Your task to perform on an android device: change the upload size in google photos Image 0: 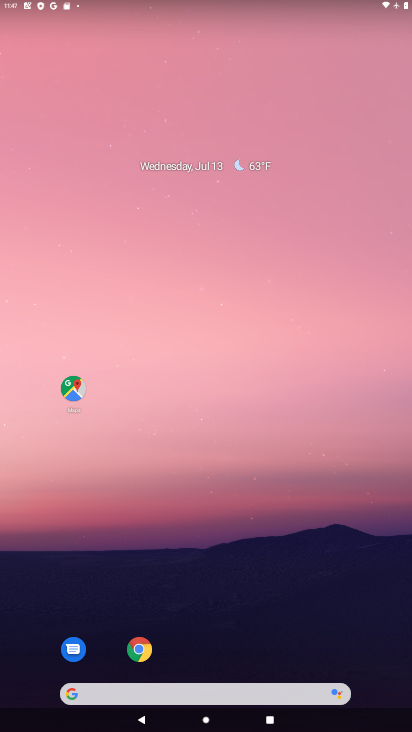
Step 0: drag from (260, 619) to (255, 240)
Your task to perform on an android device: change the upload size in google photos Image 1: 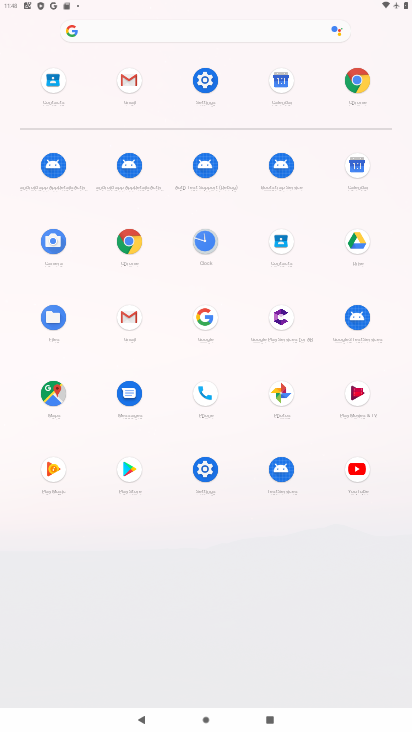
Step 1: click (289, 391)
Your task to perform on an android device: change the upload size in google photos Image 2: 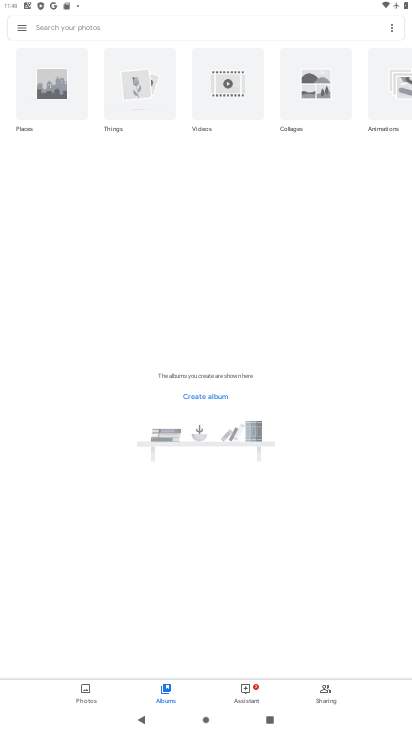
Step 2: click (23, 31)
Your task to perform on an android device: change the upload size in google photos Image 3: 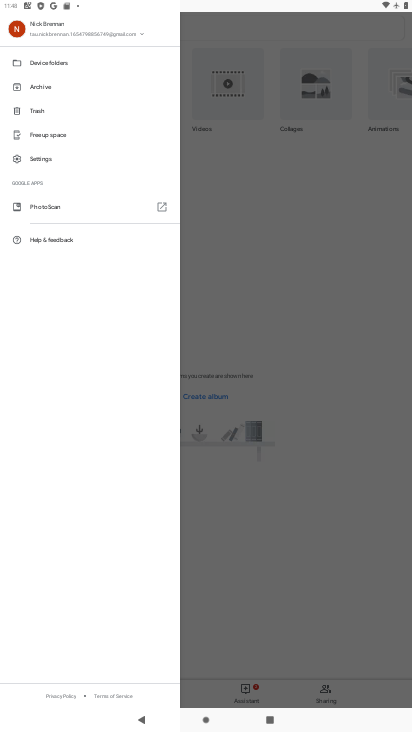
Step 3: click (40, 160)
Your task to perform on an android device: change the upload size in google photos Image 4: 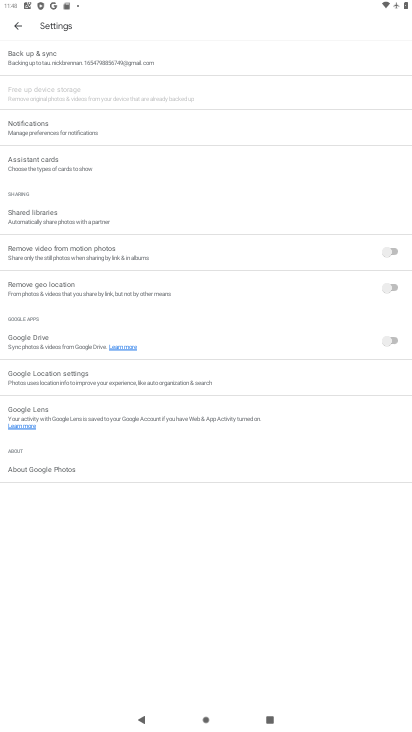
Step 4: click (60, 59)
Your task to perform on an android device: change the upload size in google photos Image 5: 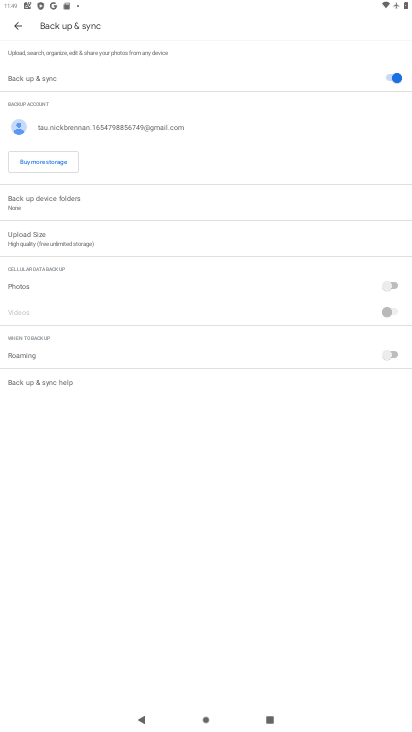
Step 5: click (73, 231)
Your task to perform on an android device: change the upload size in google photos Image 6: 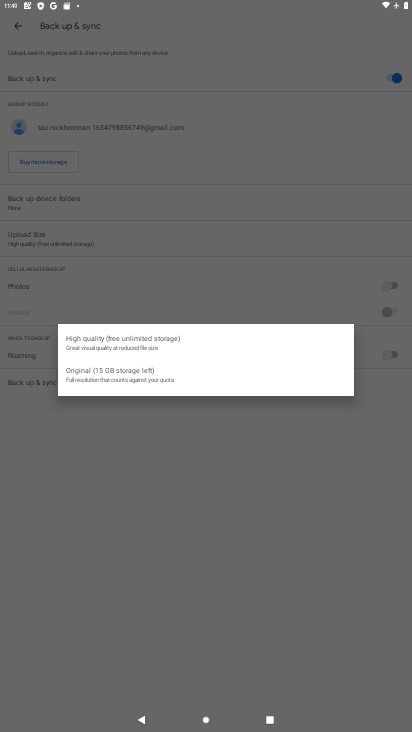
Step 6: click (147, 373)
Your task to perform on an android device: change the upload size in google photos Image 7: 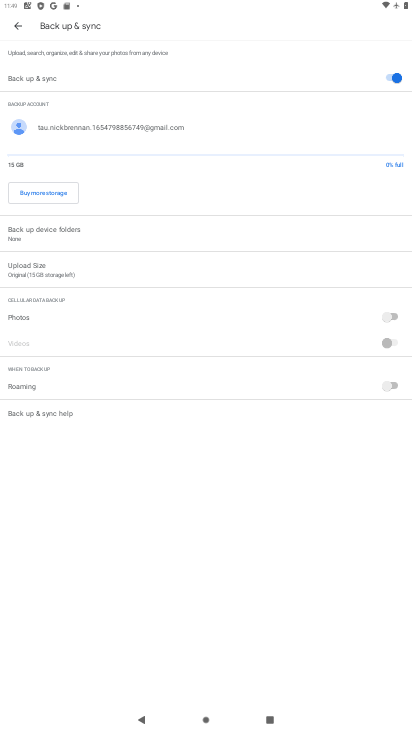
Step 7: task complete